Your task to perform on an android device: all mails in gmail Image 0: 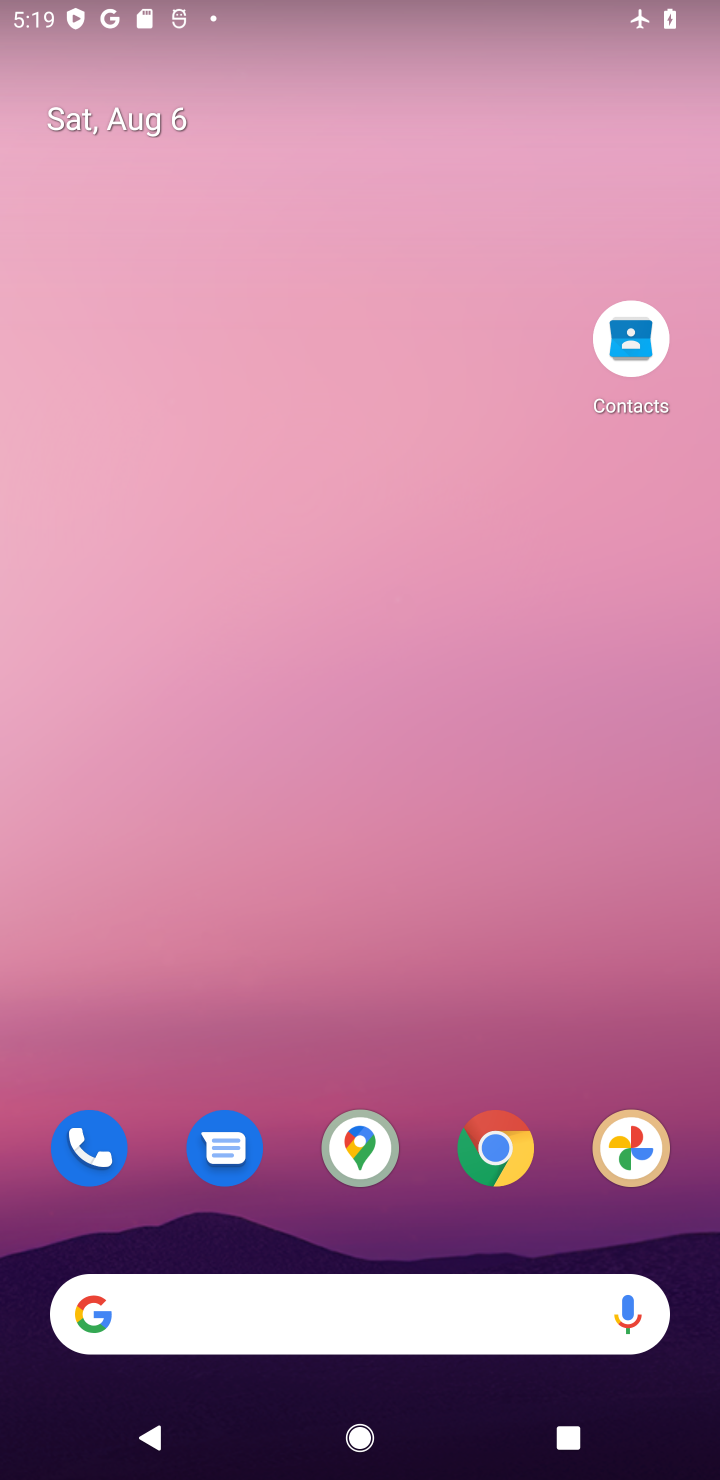
Step 0: drag from (387, 1273) to (583, 18)
Your task to perform on an android device: all mails in gmail Image 1: 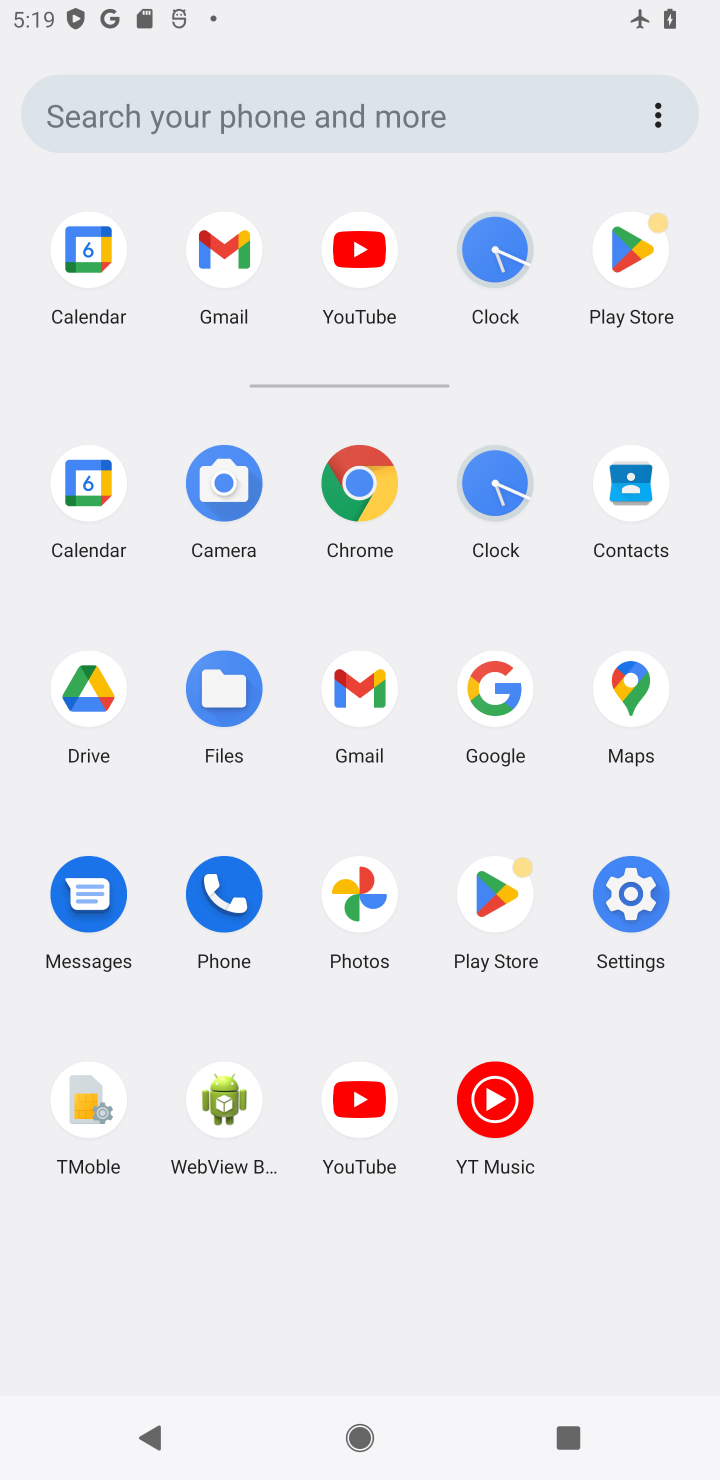
Step 1: click (358, 719)
Your task to perform on an android device: all mails in gmail Image 2: 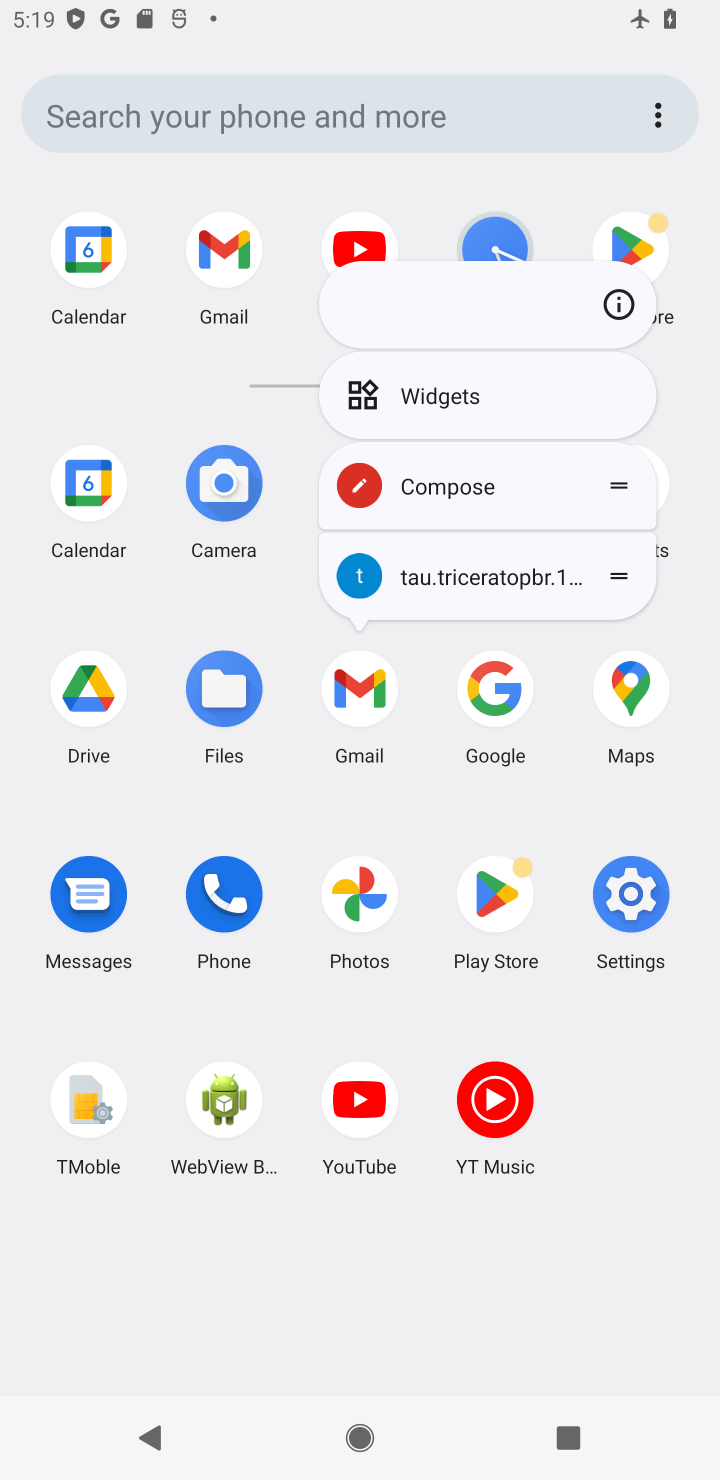
Step 2: click (369, 703)
Your task to perform on an android device: all mails in gmail Image 3: 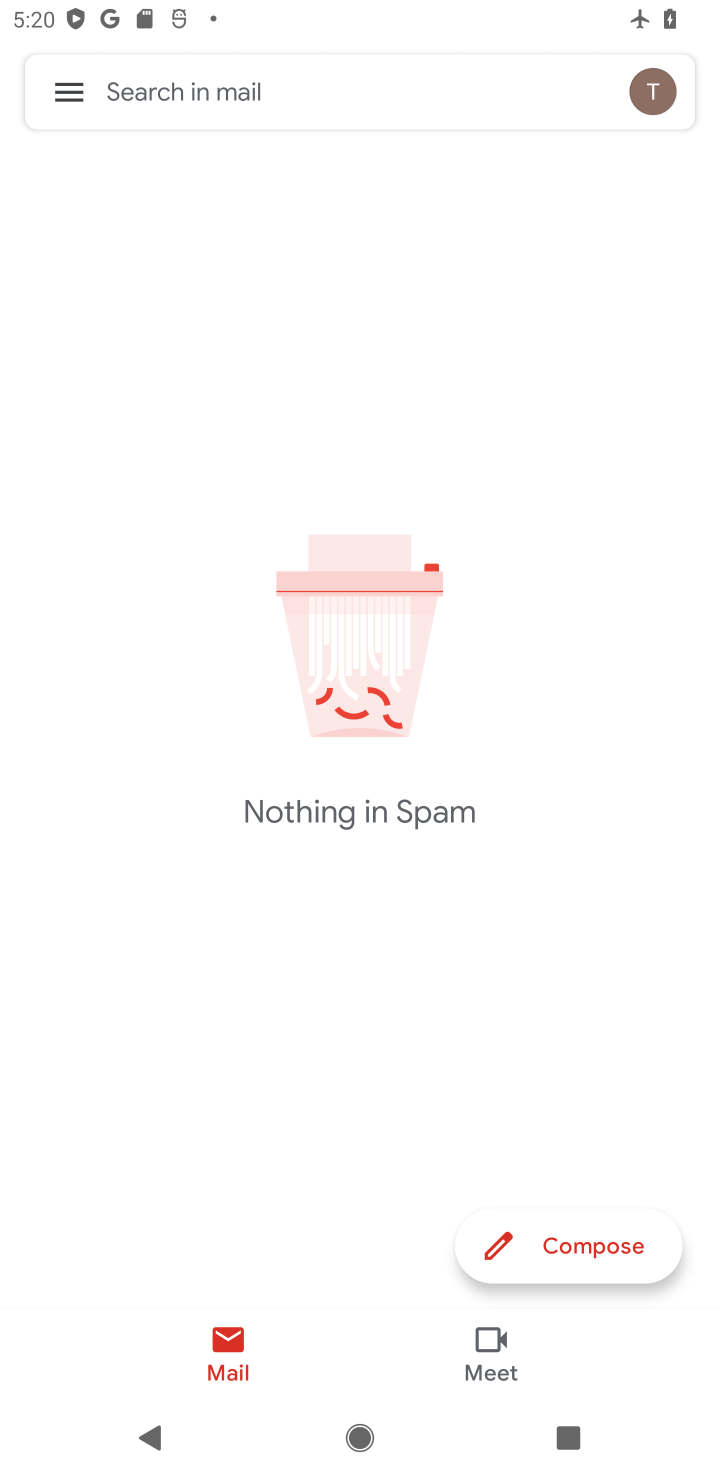
Step 3: click (46, 71)
Your task to perform on an android device: all mails in gmail Image 4: 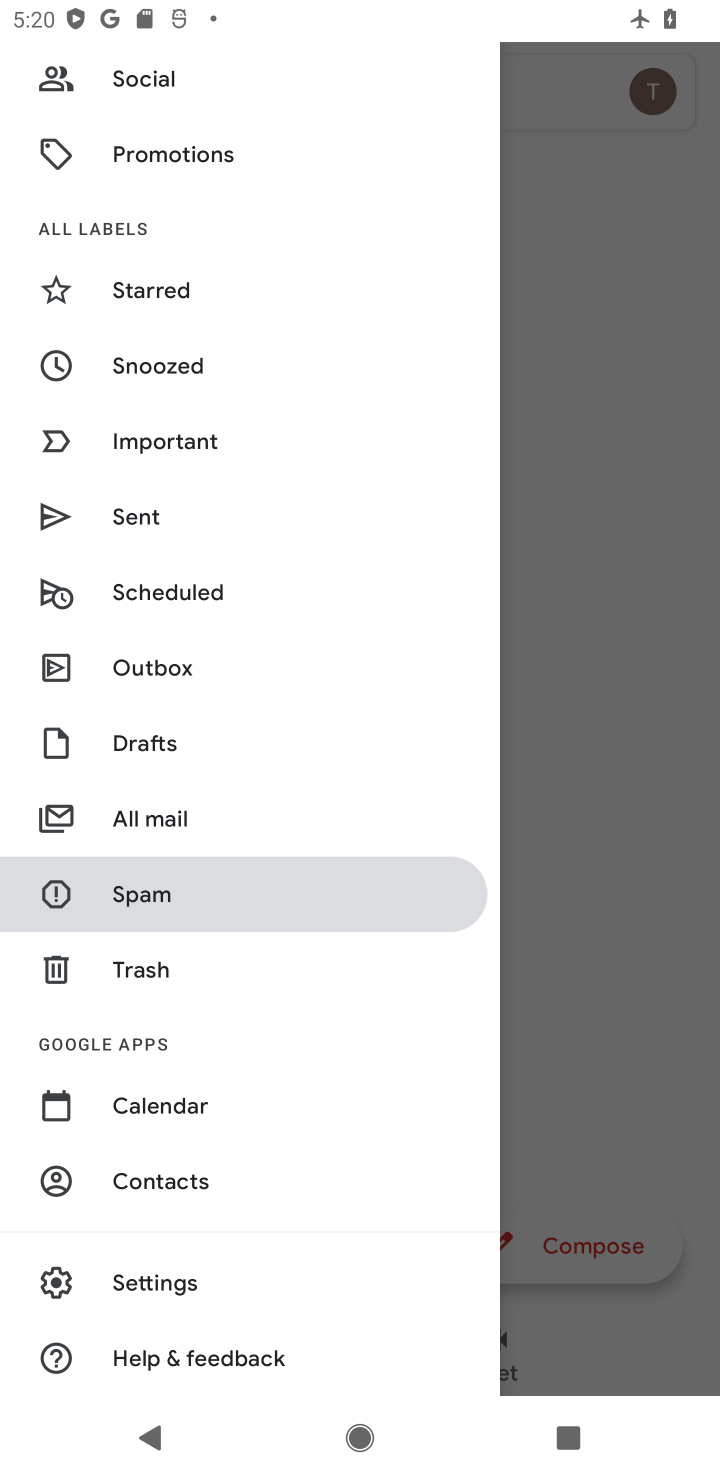
Step 4: click (173, 814)
Your task to perform on an android device: all mails in gmail Image 5: 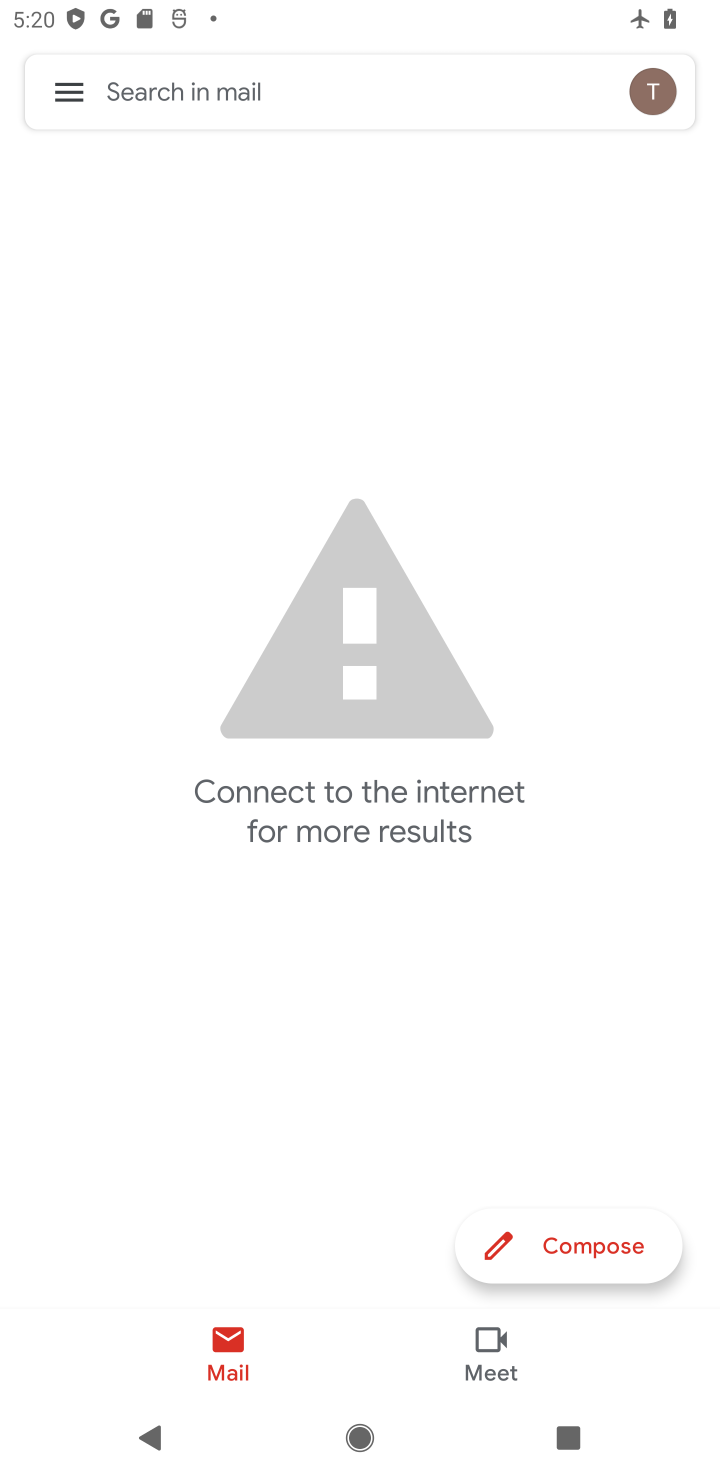
Step 5: task complete